Your task to perform on an android device: Go to Reddit.com Image 0: 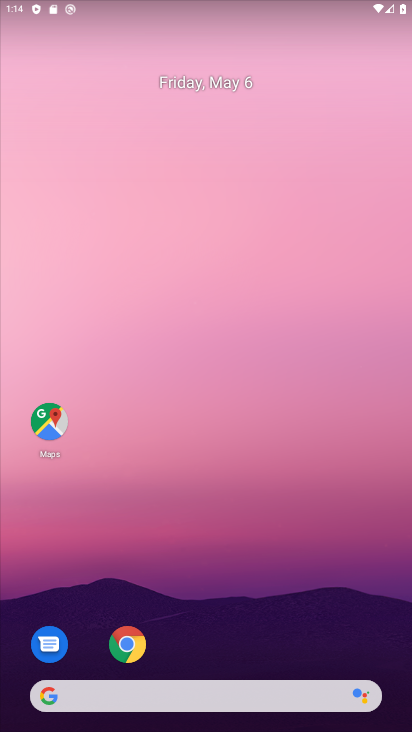
Step 0: click (132, 648)
Your task to perform on an android device: Go to Reddit.com Image 1: 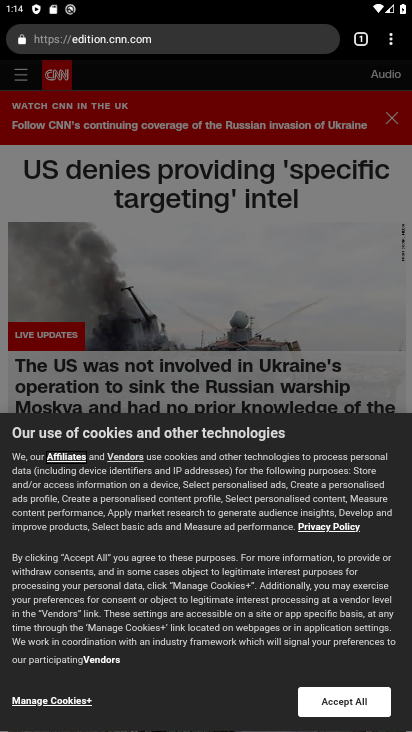
Step 1: click (357, 34)
Your task to perform on an android device: Go to Reddit.com Image 2: 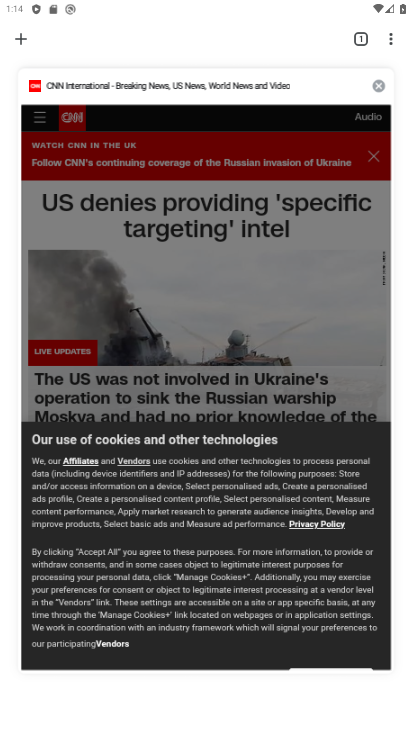
Step 2: click (21, 36)
Your task to perform on an android device: Go to Reddit.com Image 3: 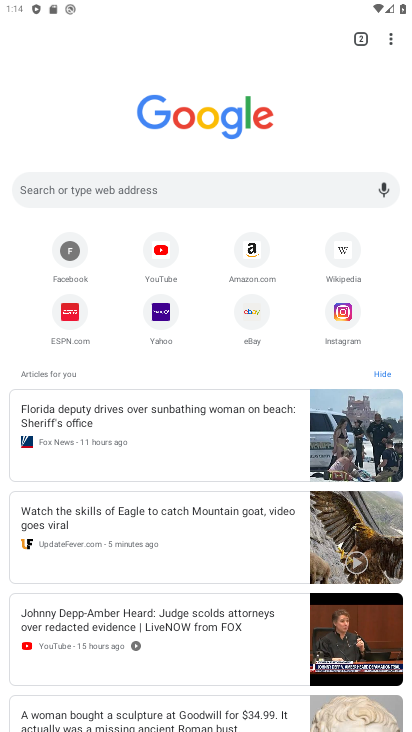
Step 3: click (120, 187)
Your task to perform on an android device: Go to Reddit.com Image 4: 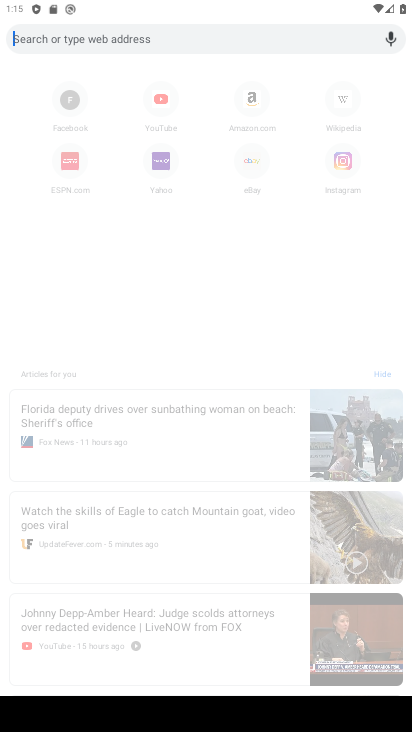
Step 4: type "reddit.com"
Your task to perform on an android device: Go to Reddit.com Image 5: 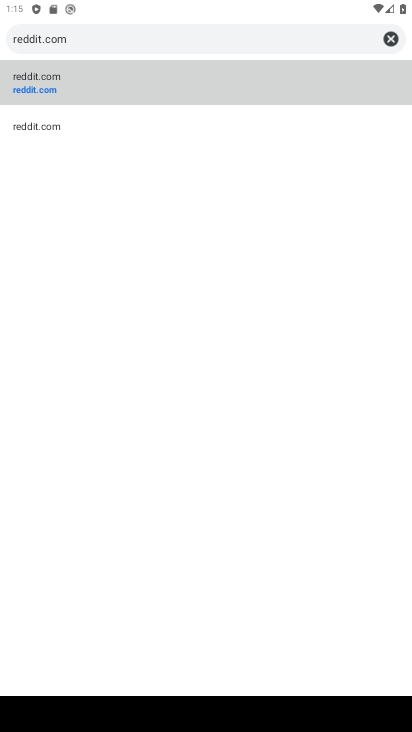
Step 5: click (88, 74)
Your task to perform on an android device: Go to Reddit.com Image 6: 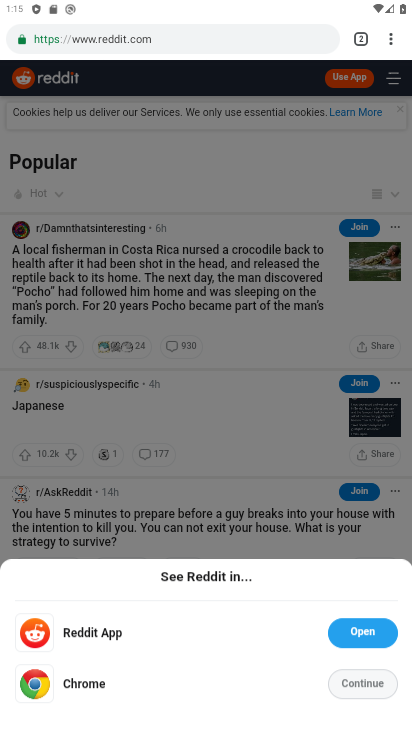
Step 6: task complete